Your task to perform on an android device: change text size in settings app Image 0: 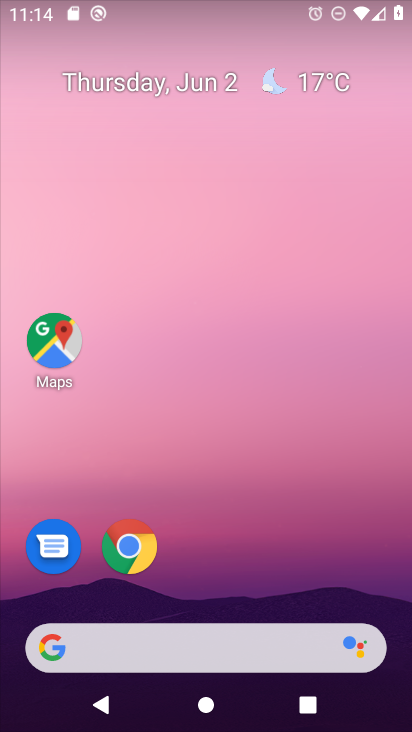
Step 0: drag from (252, 63) to (245, 0)
Your task to perform on an android device: change text size in settings app Image 1: 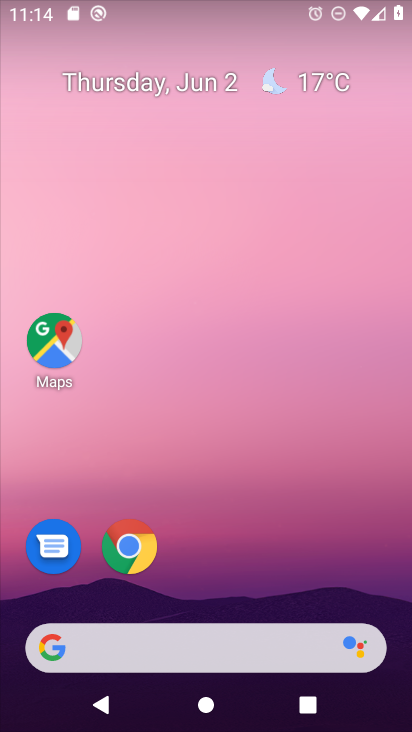
Step 1: drag from (197, 421) to (210, 37)
Your task to perform on an android device: change text size in settings app Image 2: 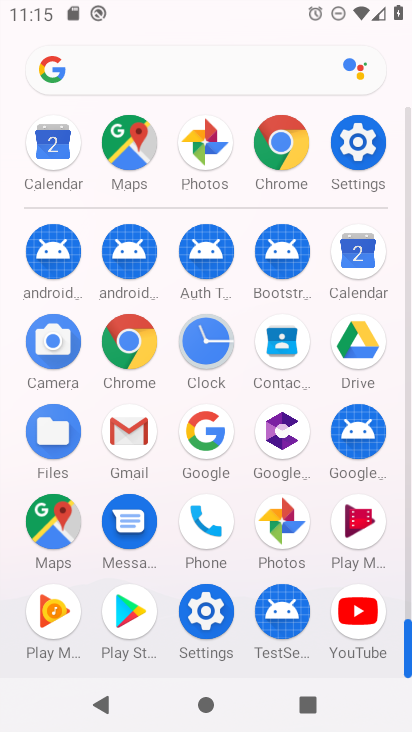
Step 2: click (204, 609)
Your task to perform on an android device: change text size in settings app Image 3: 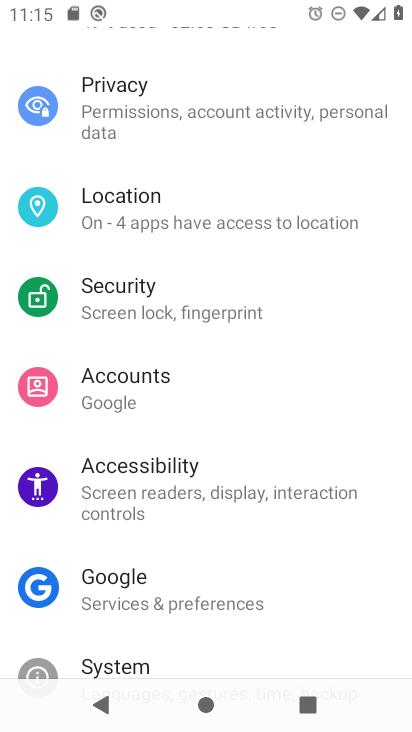
Step 3: drag from (276, 171) to (250, 573)
Your task to perform on an android device: change text size in settings app Image 4: 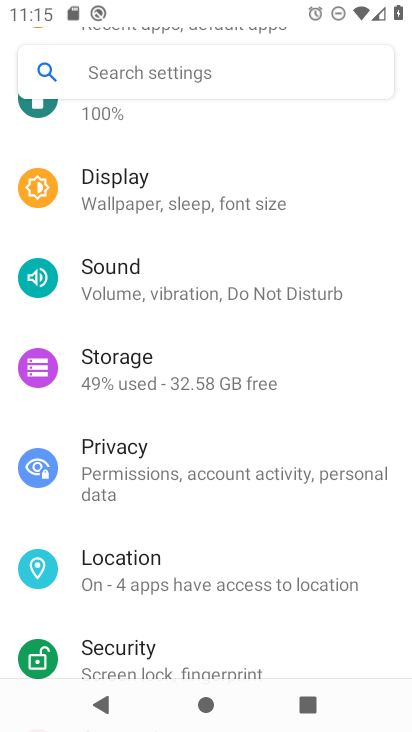
Step 4: click (177, 184)
Your task to perform on an android device: change text size in settings app Image 5: 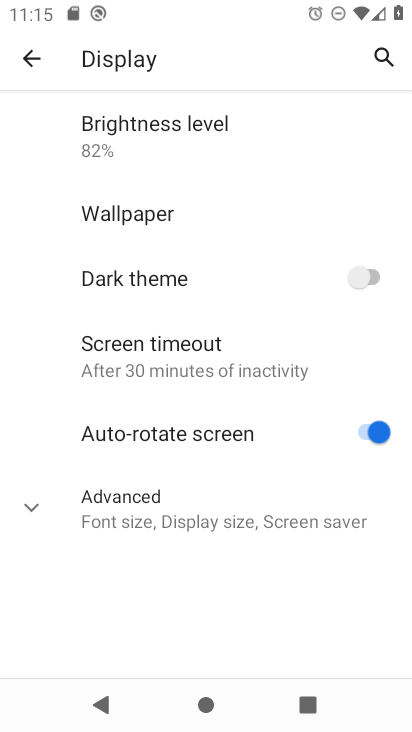
Step 5: click (23, 503)
Your task to perform on an android device: change text size in settings app Image 6: 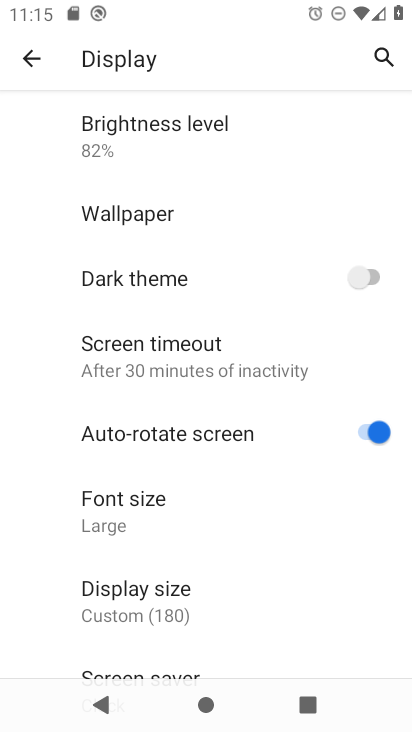
Step 6: click (131, 522)
Your task to perform on an android device: change text size in settings app Image 7: 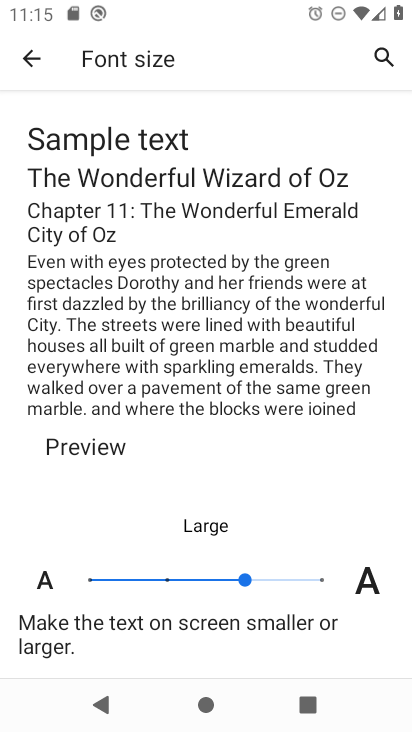
Step 7: click (304, 575)
Your task to perform on an android device: change text size in settings app Image 8: 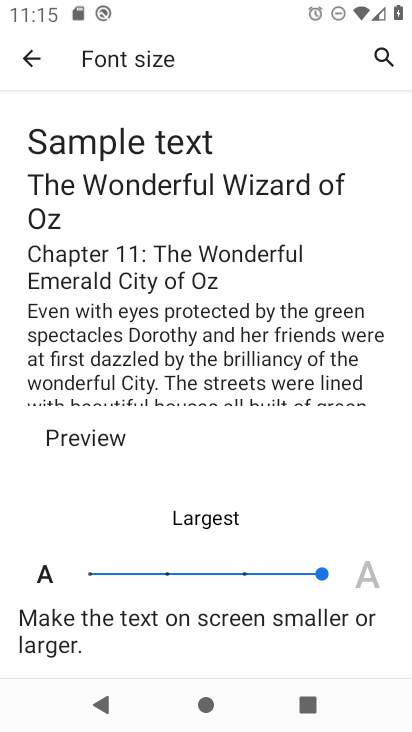
Step 8: task complete